Your task to perform on an android device: Go to Yahoo.com Image 0: 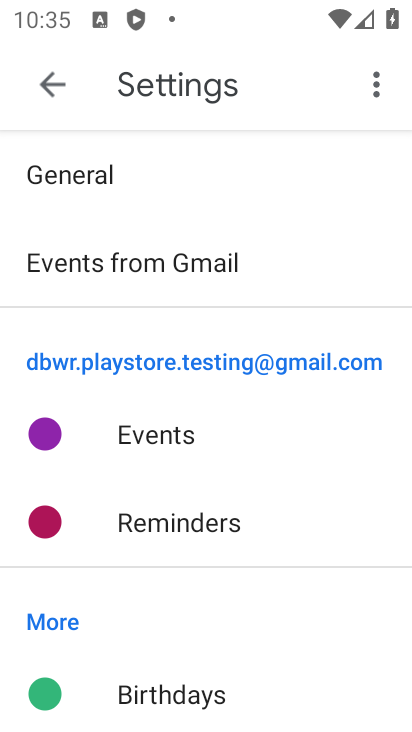
Step 0: press home button
Your task to perform on an android device: Go to Yahoo.com Image 1: 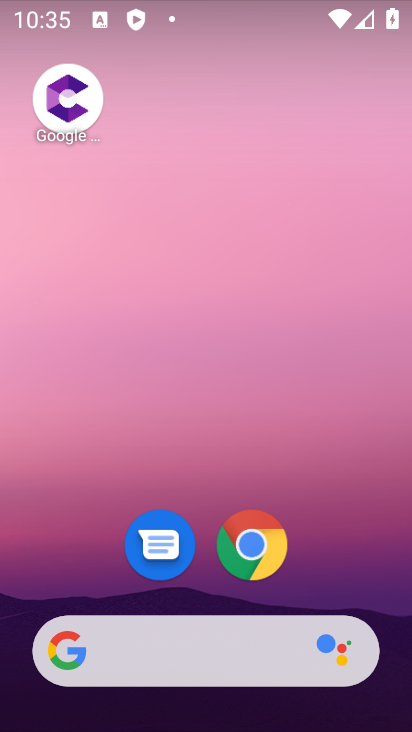
Step 1: click (244, 529)
Your task to perform on an android device: Go to Yahoo.com Image 2: 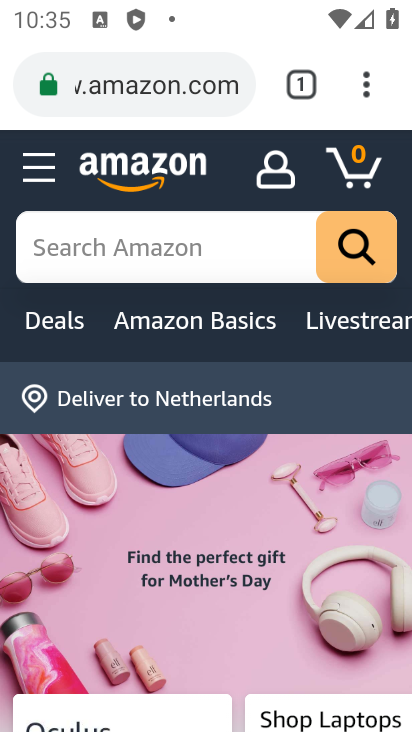
Step 2: click (299, 89)
Your task to perform on an android device: Go to Yahoo.com Image 3: 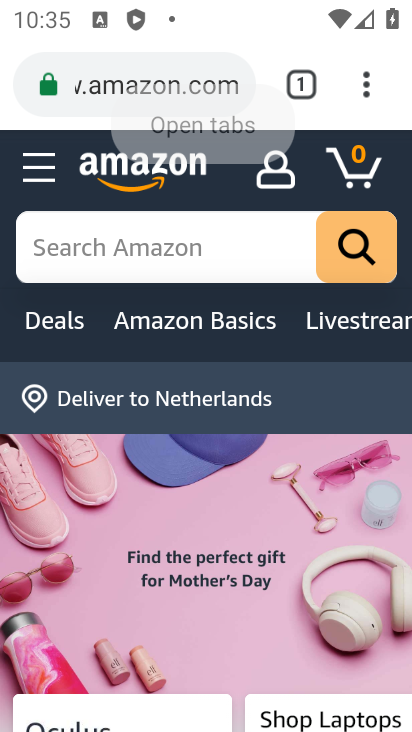
Step 3: click (295, 86)
Your task to perform on an android device: Go to Yahoo.com Image 4: 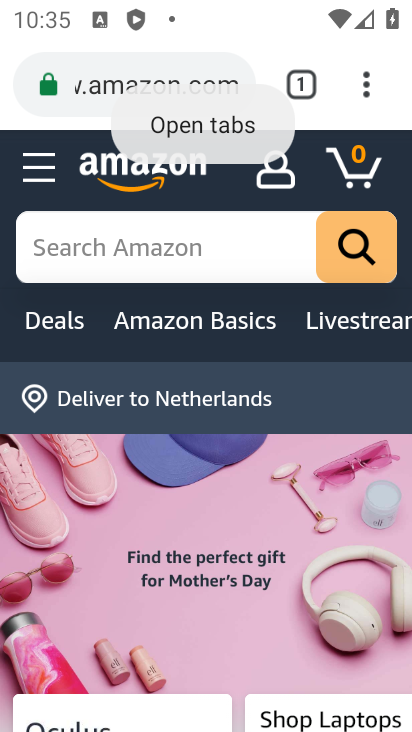
Step 4: click (294, 85)
Your task to perform on an android device: Go to Yahoo.com Image 5: 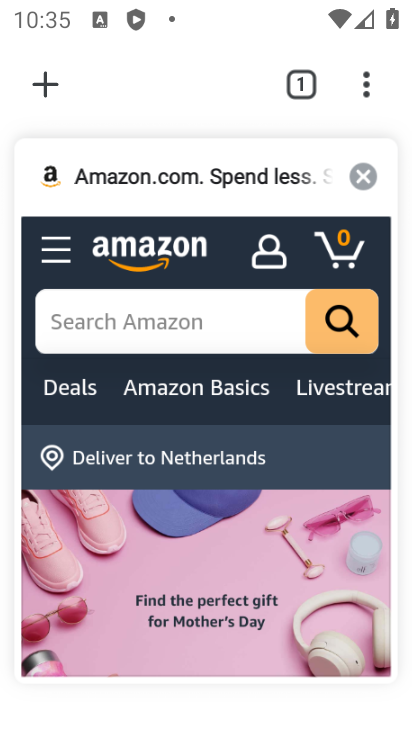
Step 5: click (40, 94)
Your task to perform on an android device: Go to Yahoo.com Image 6: 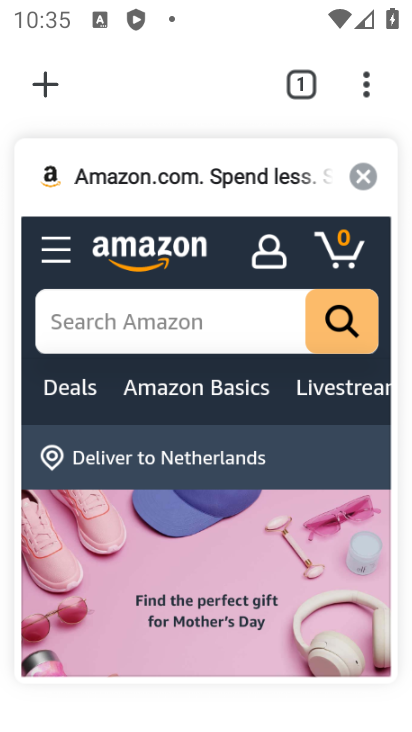
Step 6: click (53, 85)
Your task to perform on an android device: Go to Yahoo.com Image 7: 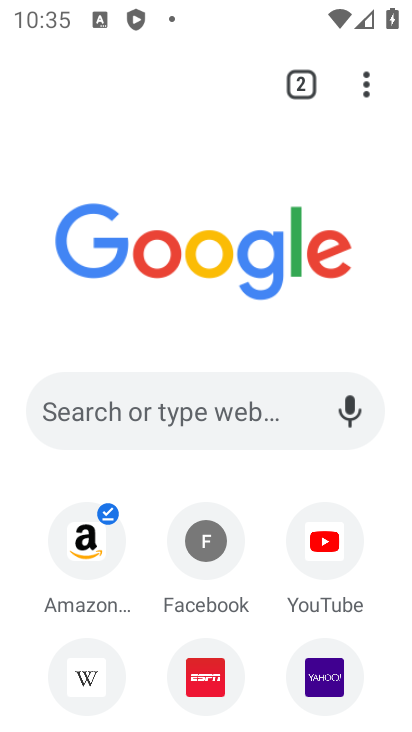
Step 7: drag from (93, 647) to (259, 262)
Your task to perform on an android device: Go to Yahoo.com Image 8: 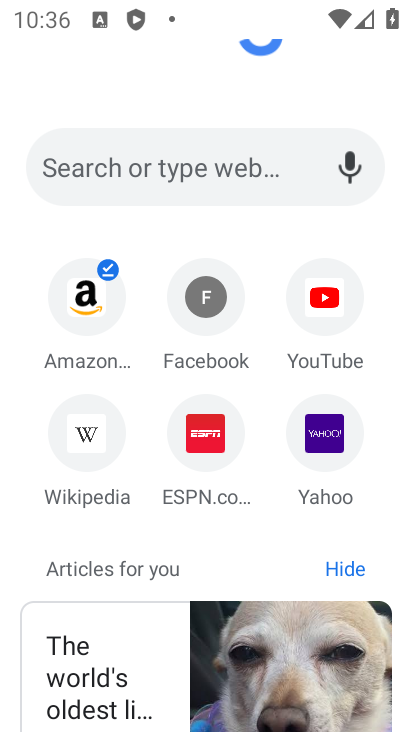
Step 8: click (319, 428)
Your task to perform on an android device: Go to Yahoo.com Image 9: 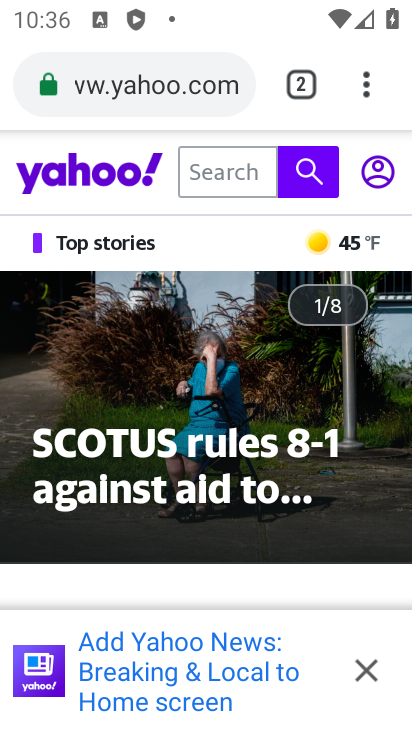
Step 9: task complete